Your task to perform on an android device: Go to Android settings Image 0: 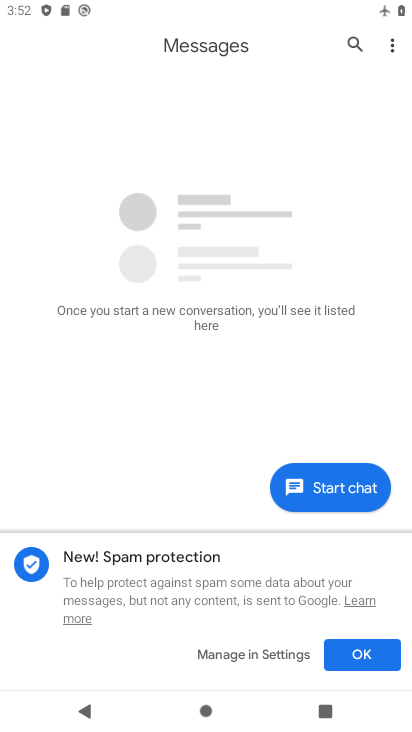
Step 0: press home button
Your task to perform on an android device: Go to Android settings Image 1: 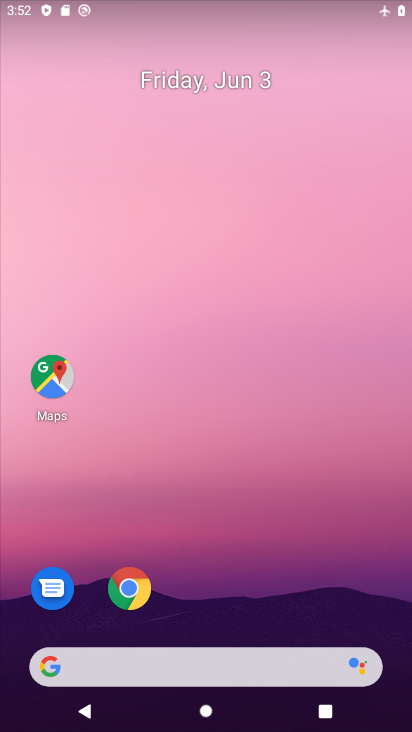
Step 1: drag from (260, 630) to (205, 161)
Your task to perform on an android device: Go to Android settings Image 2: 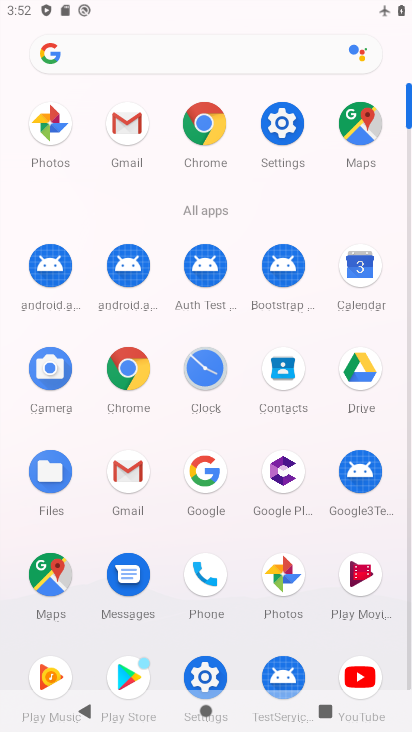
Step 2: click (297, 144)
Your task to perform on an android device: Go to Android settings Image 3: 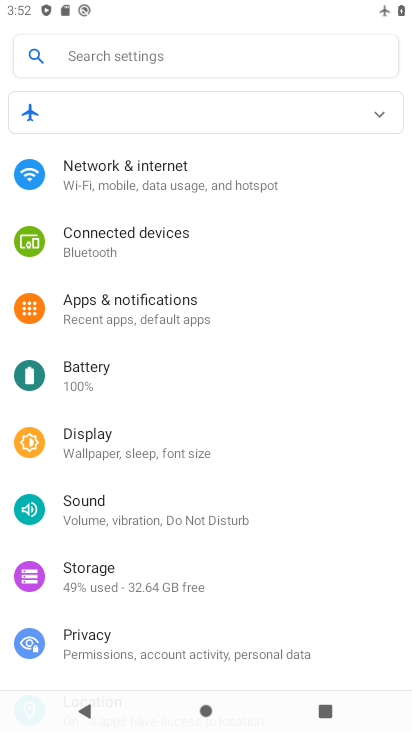
Step 3: task complete